Your task to perform on an android device: choose inbox layout in the gmail app Image 0: 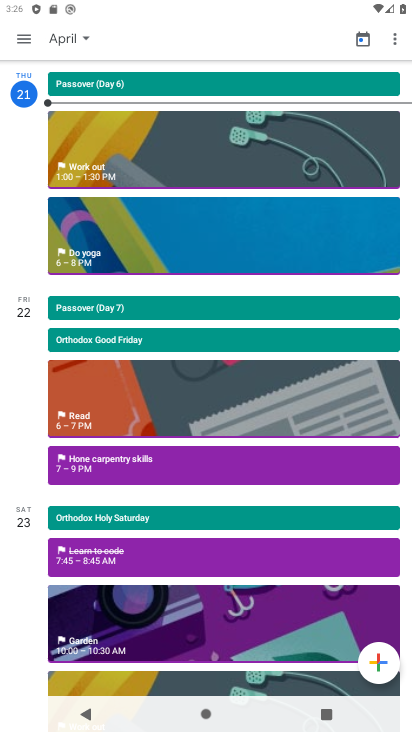
Step 0: press home button
Your task to perform on an android device: choose inbox layout in the gmail app Image 1: 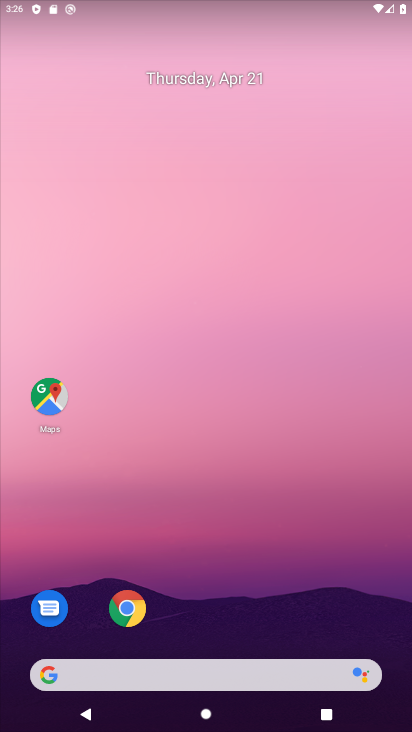
Step 1: drag from (220, 550) to (247, 122)
Your task to perform on an android device: choose inbox layout in the gmail app Image 2: 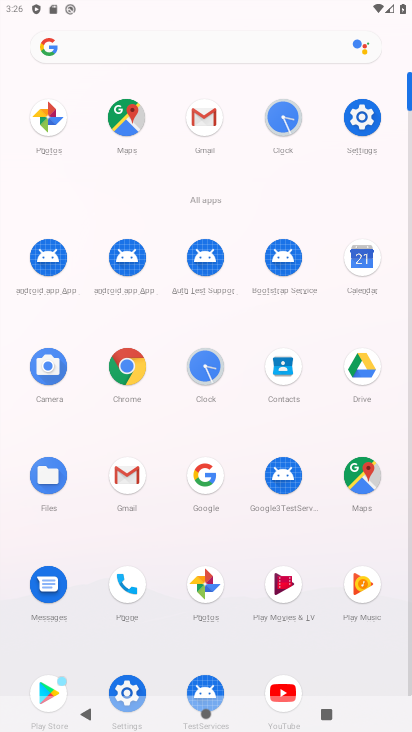
Step 2: click (214, 124)
Your task to perform on an android device: choose inbox layout in the gmail app Image 3: 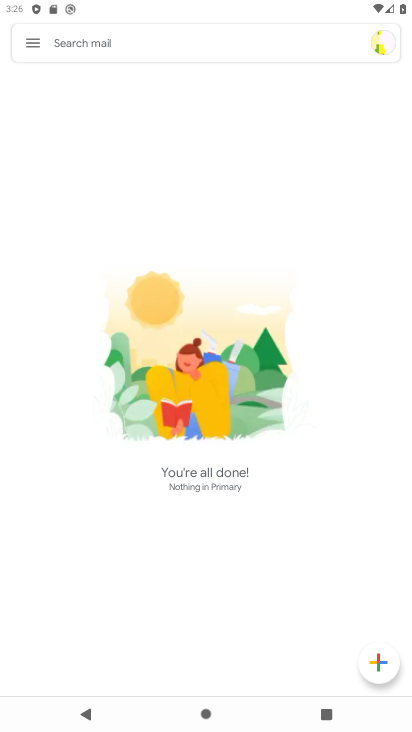
Step 3: click (33, 44)
Your task to perform on an android device: choose inbox layout in the gmail app Image 4: 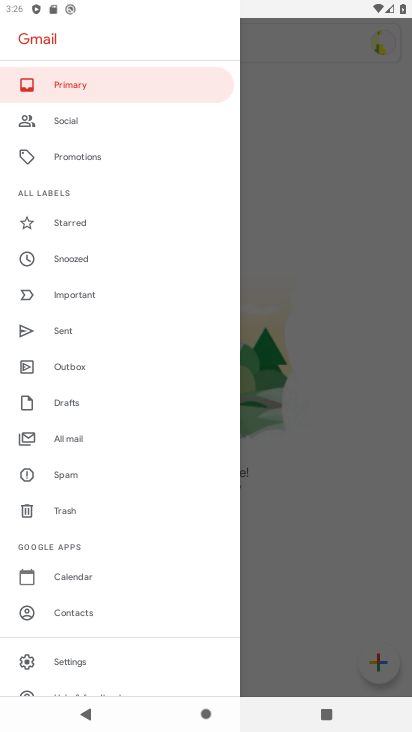
Step 4: click (70, 660)
Your task to perform on an android device: choose inbox layout in the gmail app Image 5: 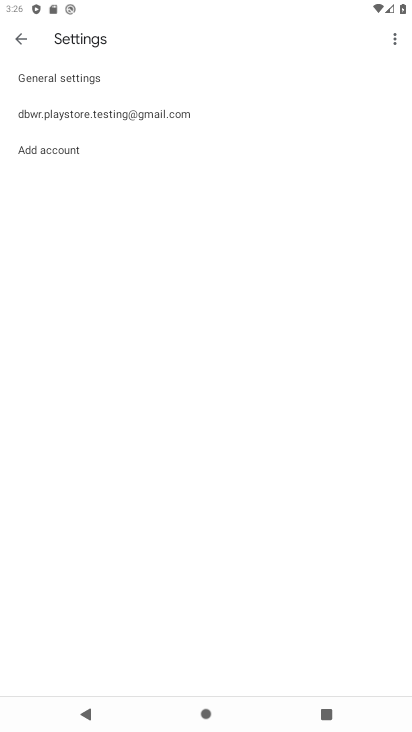
Step 5: click (187, 122)
Your task to perform on an android device: choose inbox layout in the gmail app Image 6: 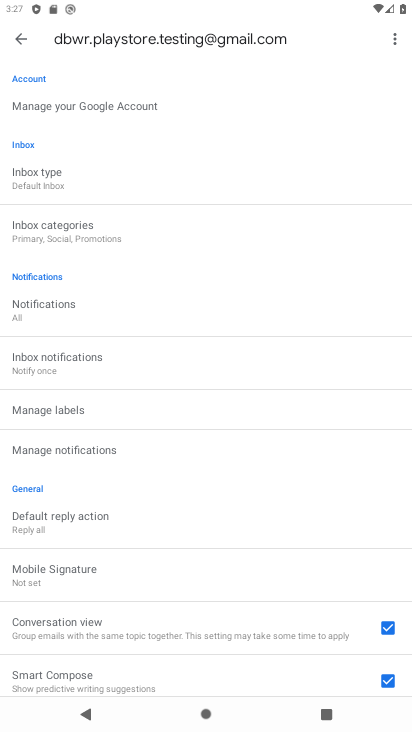
Step 6: task complete